Your task to perform on an android device: What is the news today? Image 0: 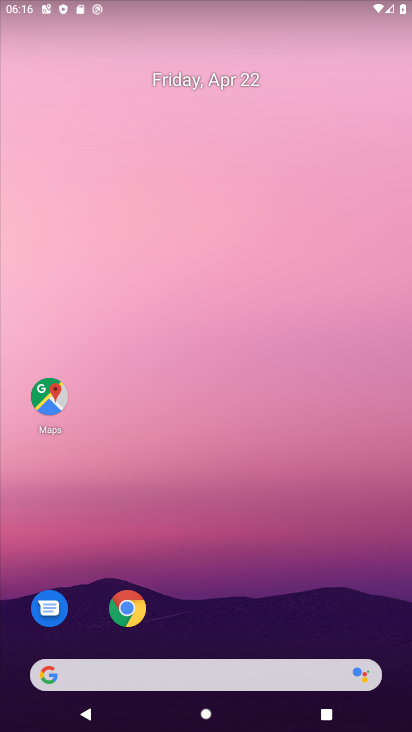
Step 0: drag from (243, 146) to (250, 53)
Your task to perform on an android device: What is the news today? Image 1: 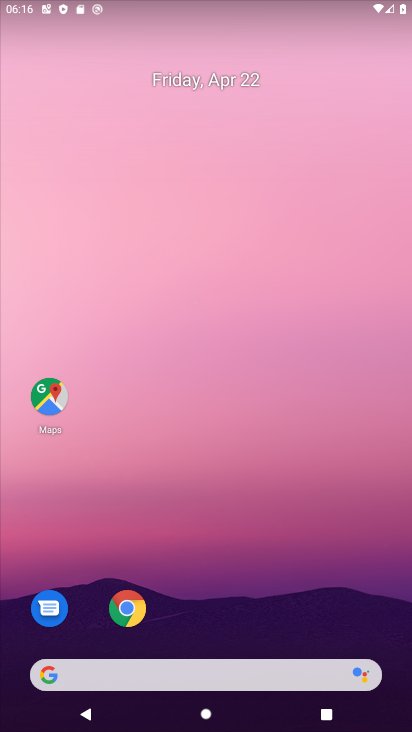
Step 1: drag from (205, 611) to (191, 154)
Your task to perform on an android device: What is the news today? Image 2: 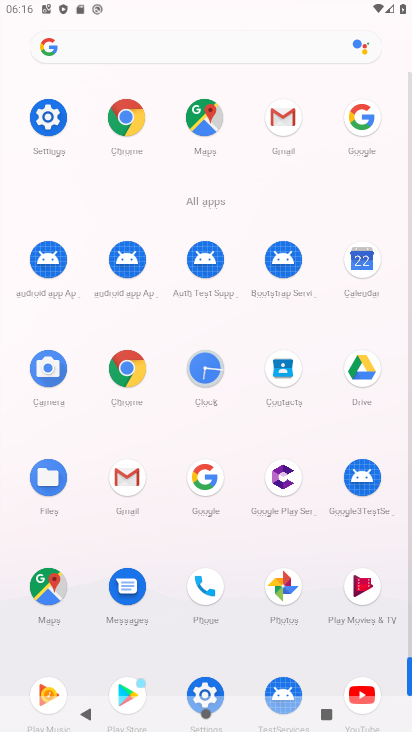
Step 2: click (359, 127)
Your task to perform on an android device: What is the news today? Image 3: 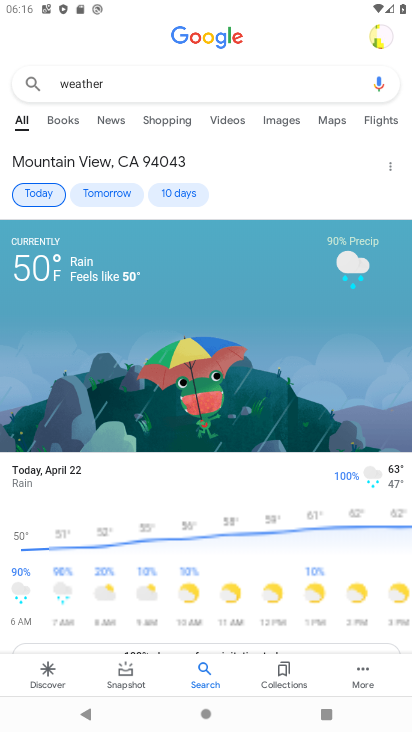
Step 3: click (110, 81)
Your task to perform on an android device: What is the news today? Image 4: 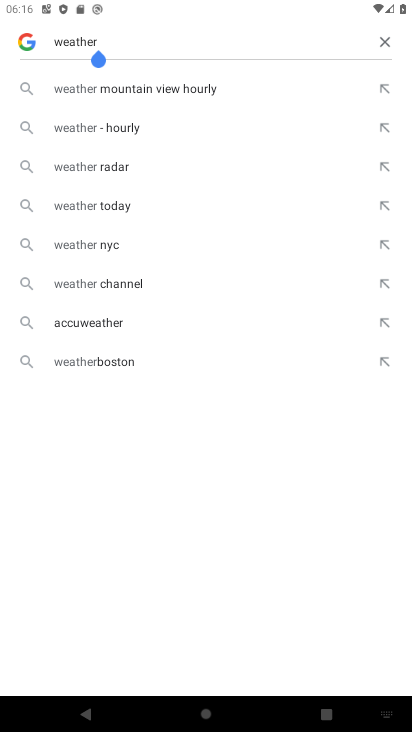
Step 4: click (161, 81)
Your task to perform on an android device: What is the news today? Image 5: 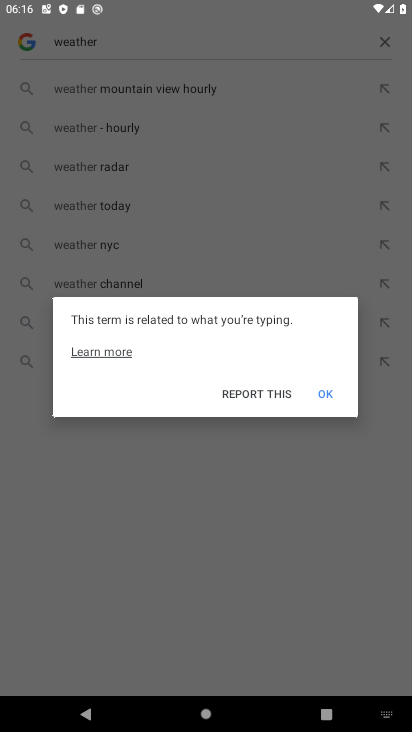
Step 5: click (386, 49)
Your task to perform on an android device: What is the news today? Image 6: 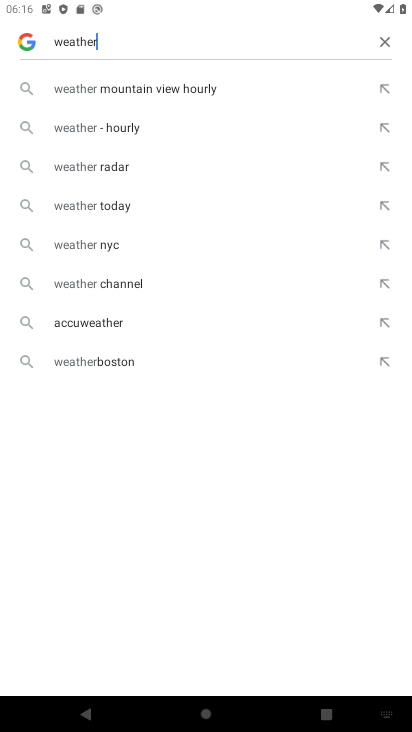
Step 6: click (387, 44)
Your task to perform on an android device: What is the news today? Image 7: 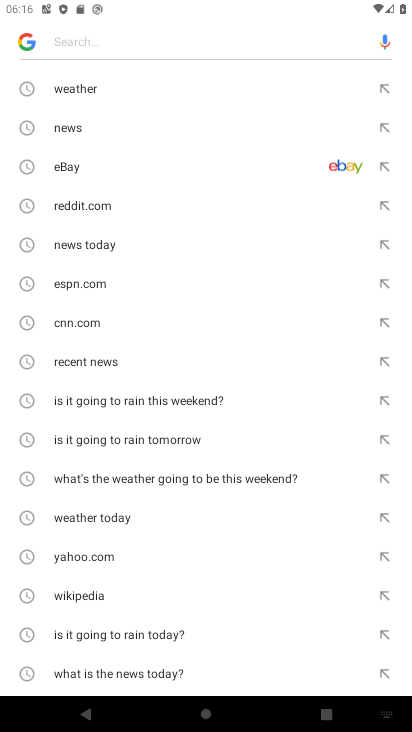
Step 7: click (69, 129)
Your task to perform on an android device: What is the news today? Image 8: 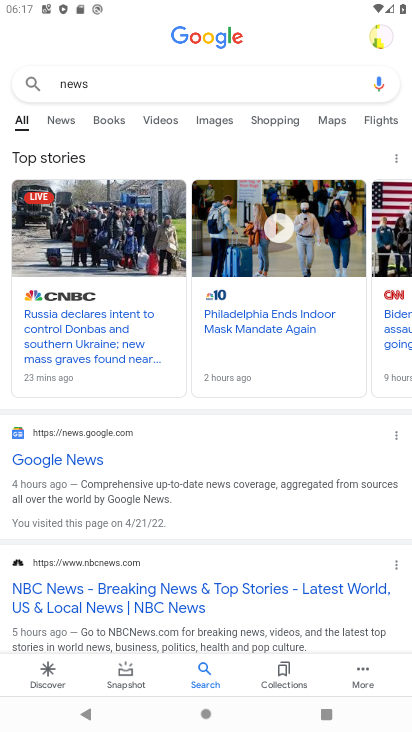
Step 8: task complete